Your task to perform on an android device: change the clock display to show seconds Image 0: 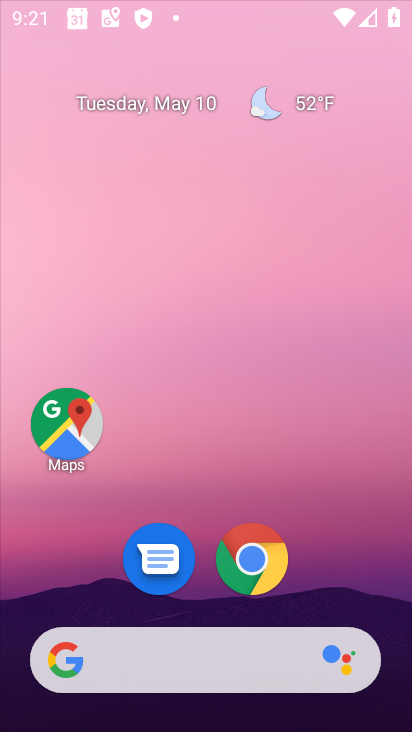
Step 0: click (258, 31)
Your task to perform on an android device: change the clock display to show seconds Image 1: 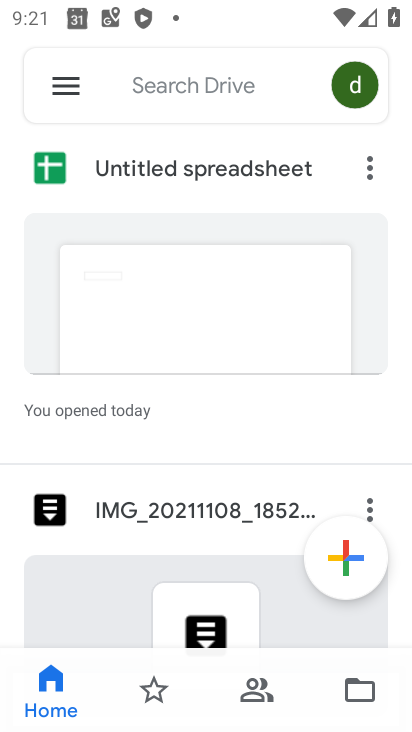
Step 1: press back button
Your task to perform on an android device: change the clock display to show seconds Image 2: 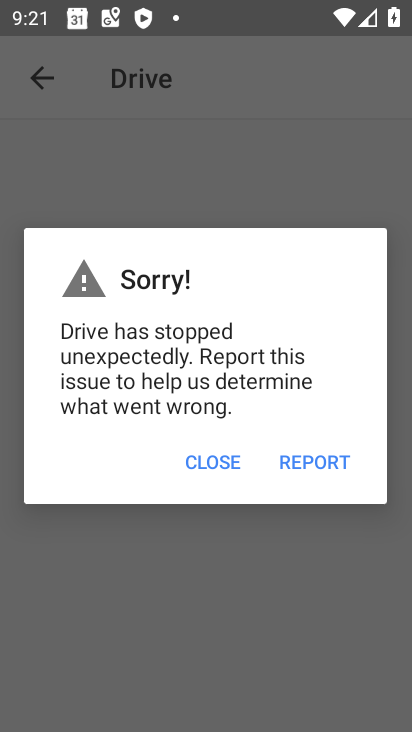
Step 2: press back button
Your task to perform on an android device: change the clock display to show seconds Image 3: 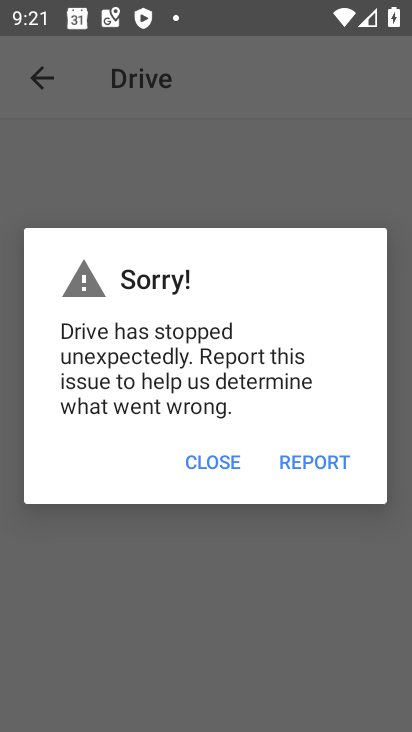
Step 3: press home button
Your task to perform on an android device: change the clock display to show seconds Image 4: 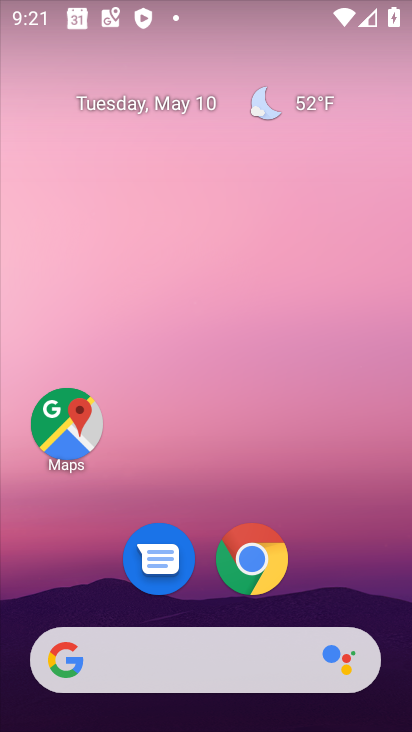
Step 4: drag from (329, 541) to (229, 7)
Your task to perform on an android device: change the clock display to show seconds Image 5: 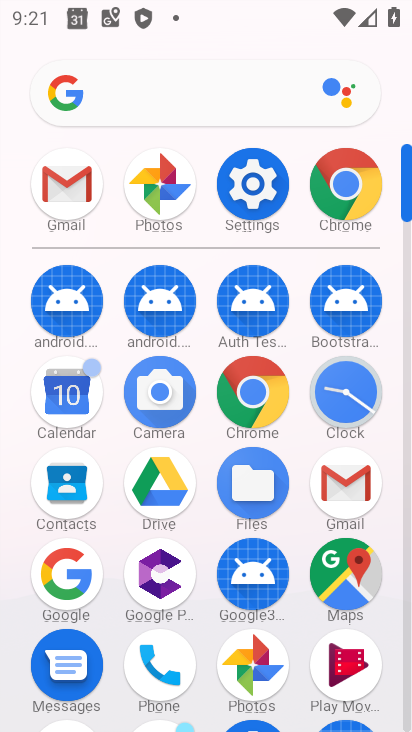
Step 5: drag from (11, 571) to (5, 222)
Your task to perform on an android device: change the clock display to show seconds Image 6: 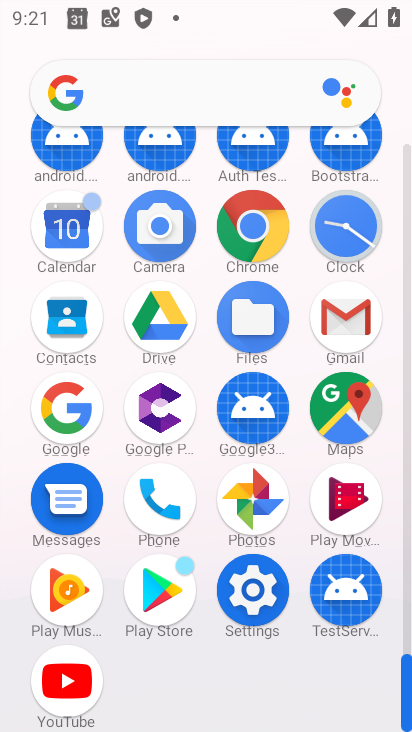
Step 6: click (346, 220)
Your task to perform on an android device: change the clock display to show seconds Image 7: 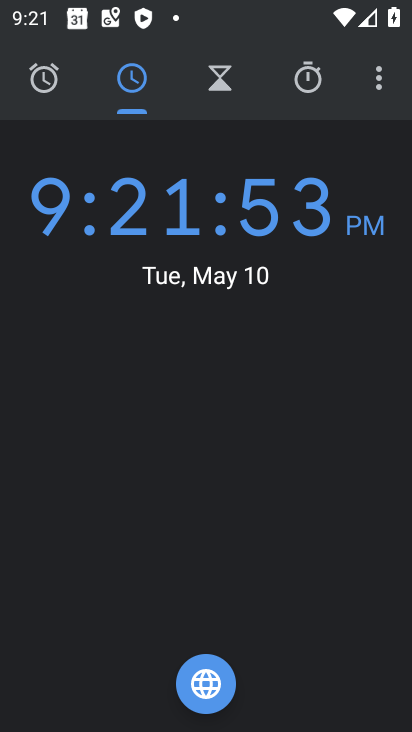
Step 7: task complete